Your task to perform on an android device: Add dell xps to the cart on walmart.com, then select checkout. Image 0: 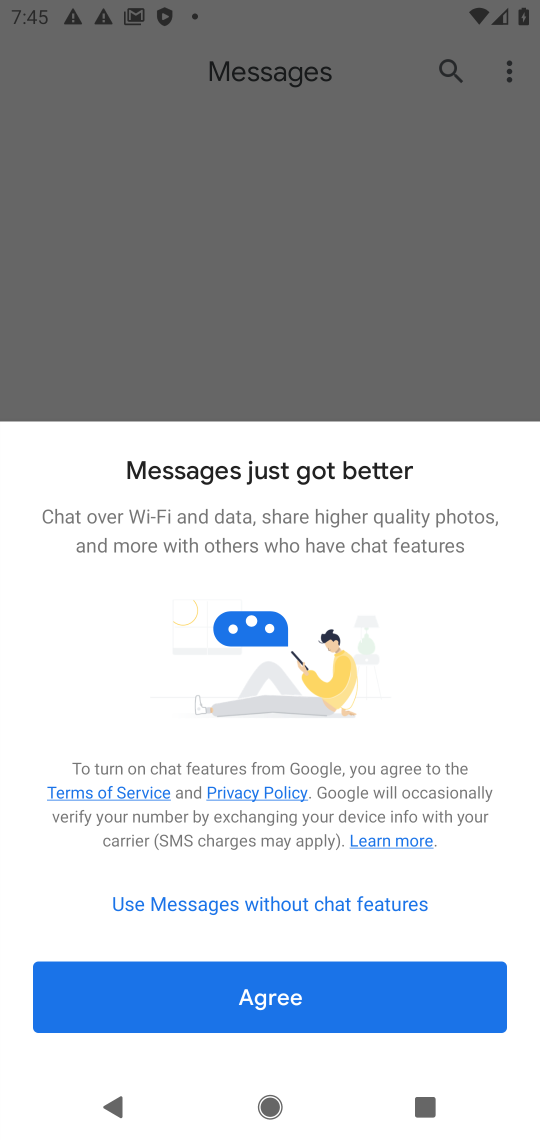
Step 0: press home button
Your task to perform on an android device: Add dell xps to the cart on walmart.com, then select checkout. Image 1: 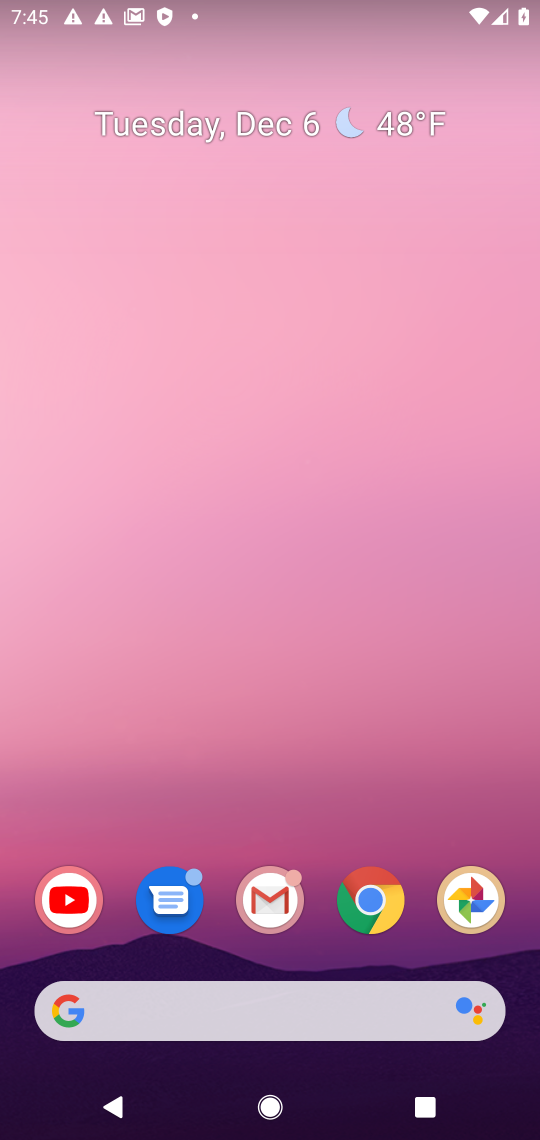
Step 1: drag from (282, 1035) to (316, 360)
Your task to perform on an android device: Add dell xps to the cart on walmart.com, then select checkout. Image 2: 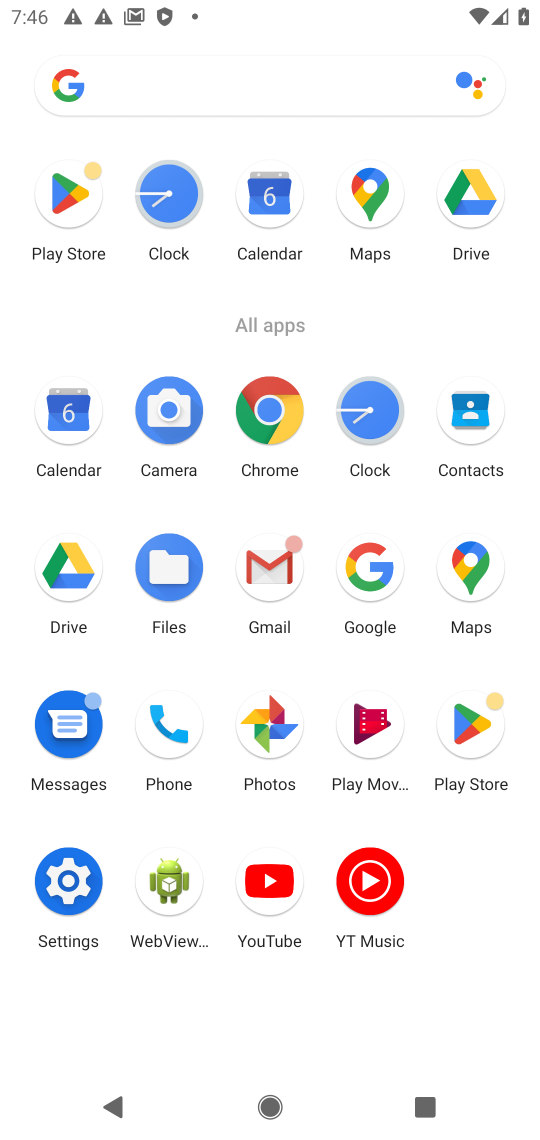
Step 2: click (363, 579)
Your task to perform on an android device: Add dell xps to the cart on walmart.com, then select checkout. Image 3: 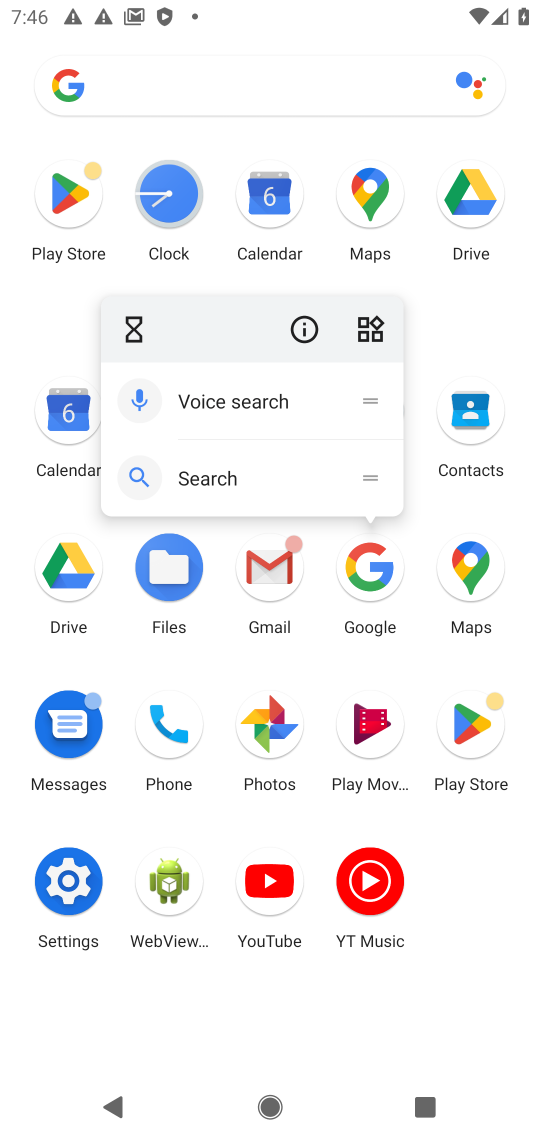
Step 3: click (366, 566)
Your task to perform on an android device: Add dell xps to the cart on walmart.com, then select checkout. Image 4: 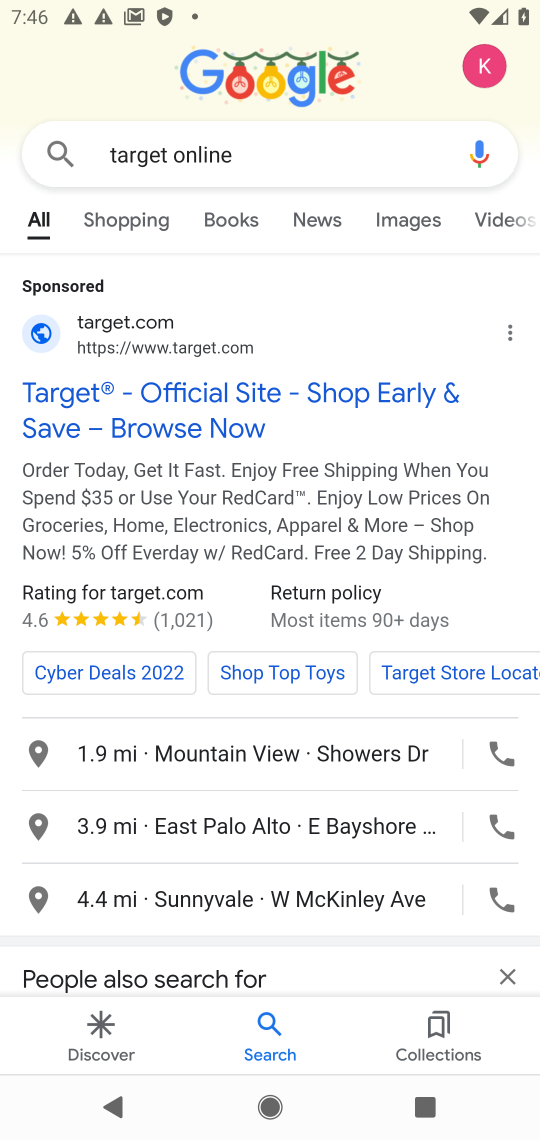
Step 4: click (257, 159)
Your task to perform on an android device: Add dell xps to the cart on walmart.com, then select checkout. Image 5: 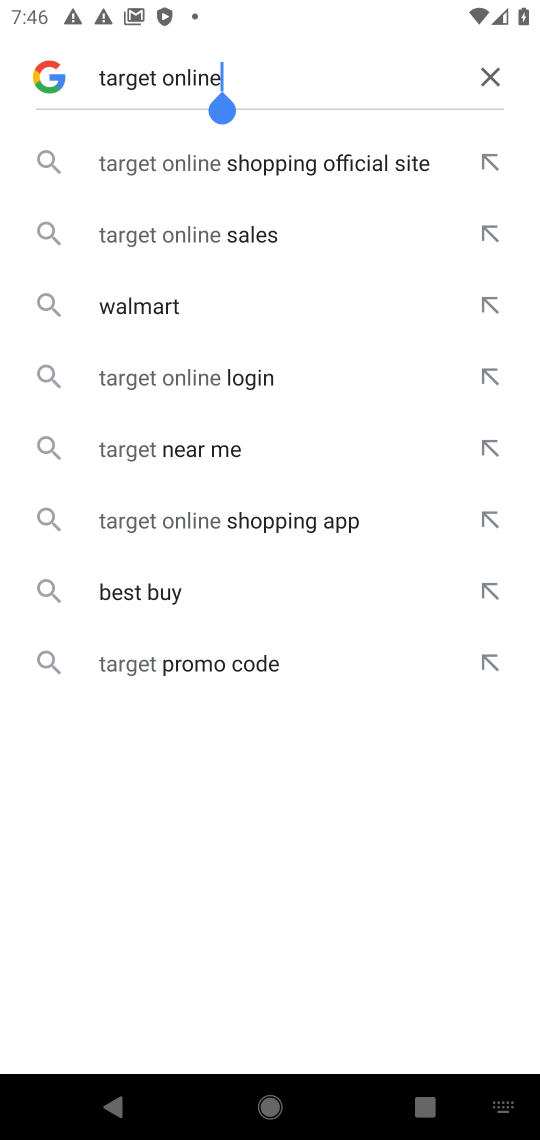
Step 5: click (484, 83)
Your task to perform on an android device: Add dell xps to the cart on walmart.com, then select checkout. Image 6: 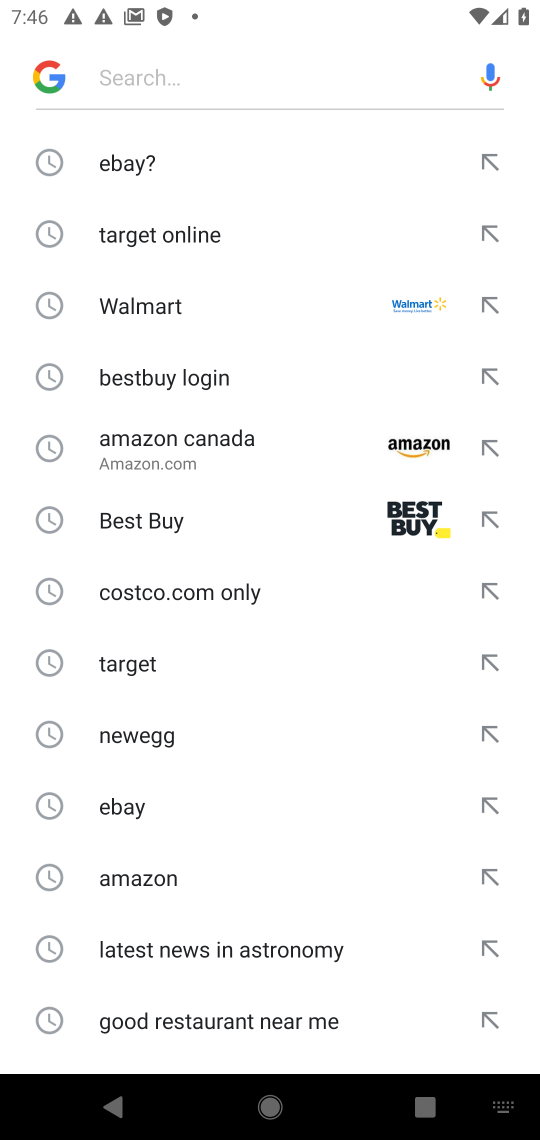
Step 6: click (430, 302)
Your task to perform on an android device: Add dell xps to the cart on walmart.com, then select checkout. Image 7: 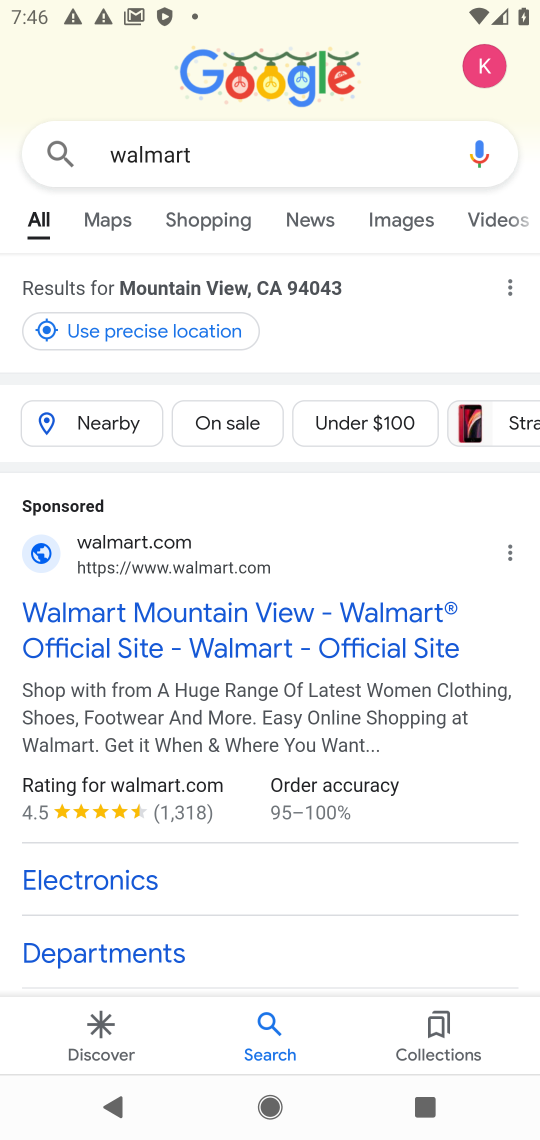
Step 7: click (196, 617)
Your task to perform on an android device: Add dell xps to the cart on walmart.com, then select checkout. Image 8: 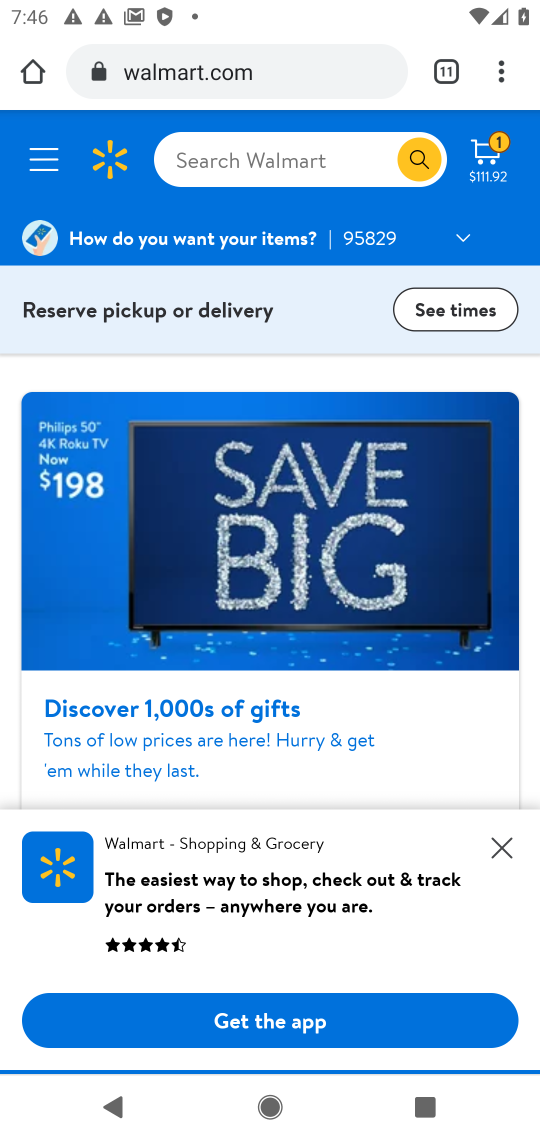
Step 8: click (250, 157)
Your task to perform on an android device: Add dell xps to the cart on walmart.com, then select checkout. Image 9: 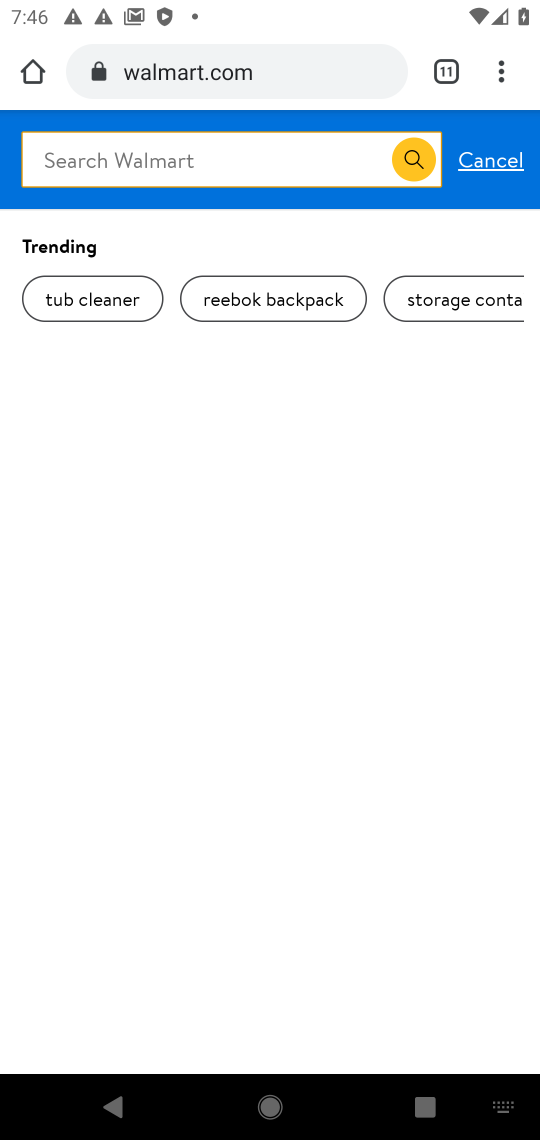
Step 9: type "xps"
Your task to perform on an android device: Add dell xps to the cart on walmart.com, then select checkout. Image 10: 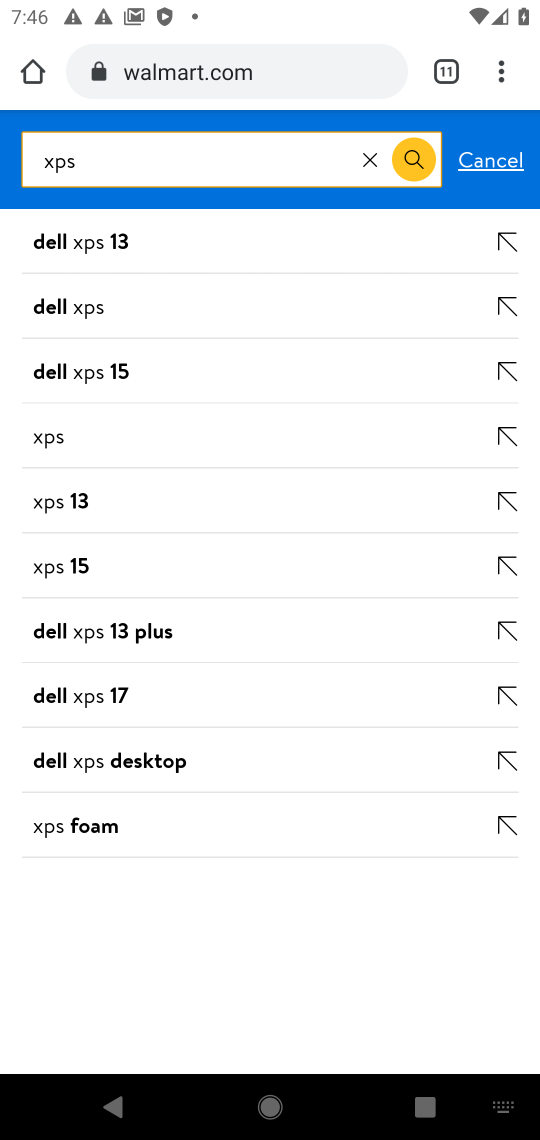
Step 10: click (79, 429)
Your task to perform on an android device: Add dell xps to the cart on walmart.com, then select checkout. Image 11: 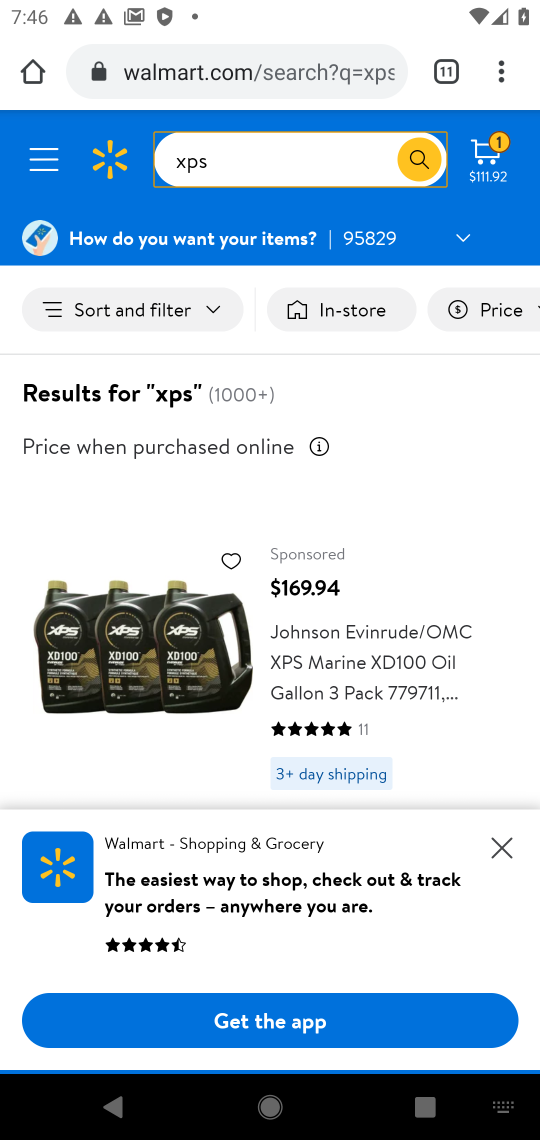
Step 11: drag from (397, 794) to (462, 316)
Your task to perform on an android device: Add dell xps to the cart on walmart.com, then select checkout. Image 12: 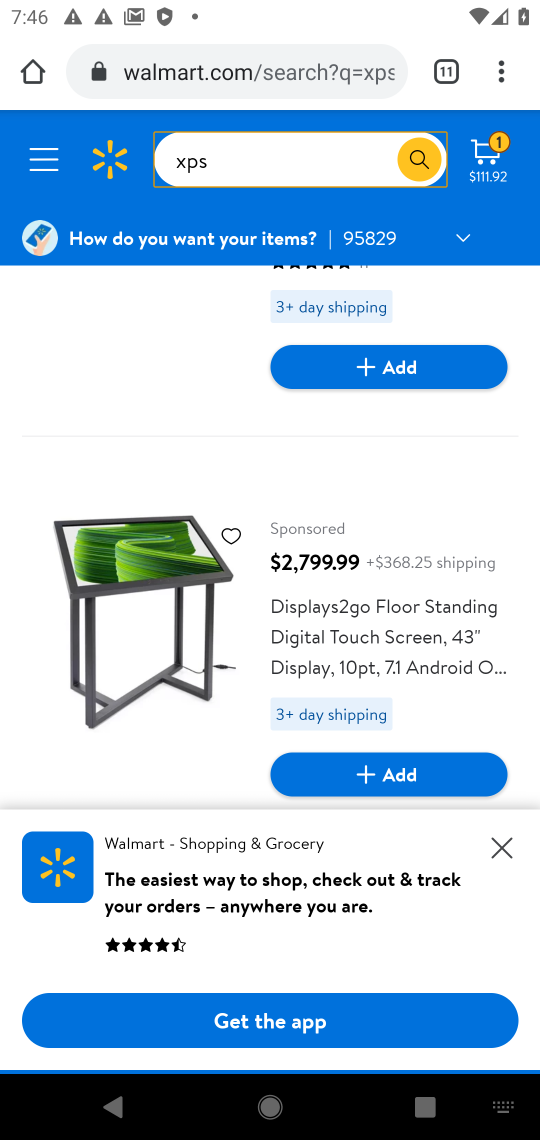
Step 12: click (394, 368)
Your task to perform on an android device: Add dell xps to the cart on walmart.com, then select checkout. Image 13: 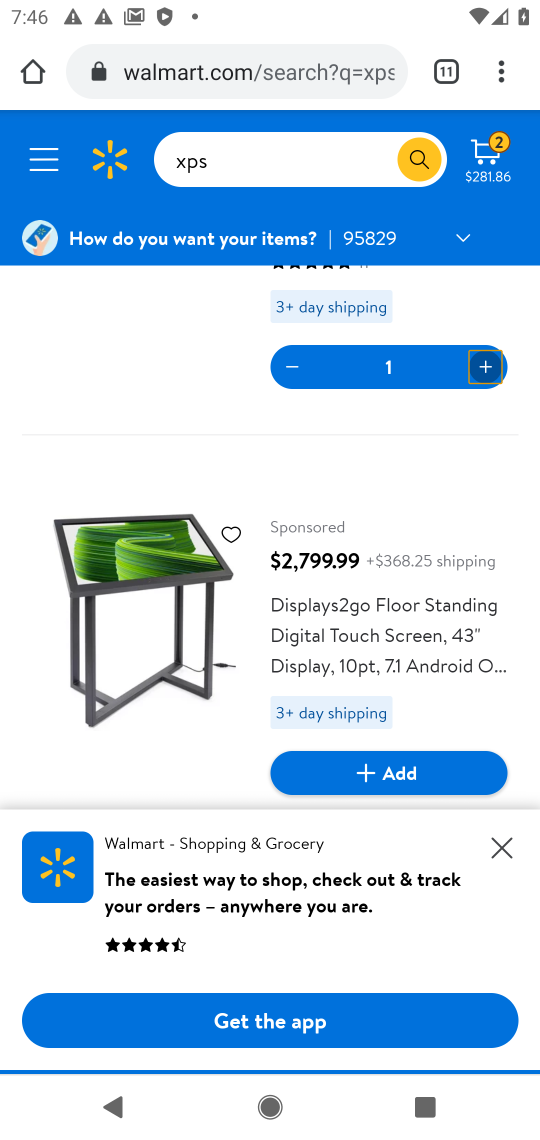
Step 13: click (504, 161)
Your task to perform on an android device: Add dell xps to the cart on walmart.com, then select checkout. Image 14: 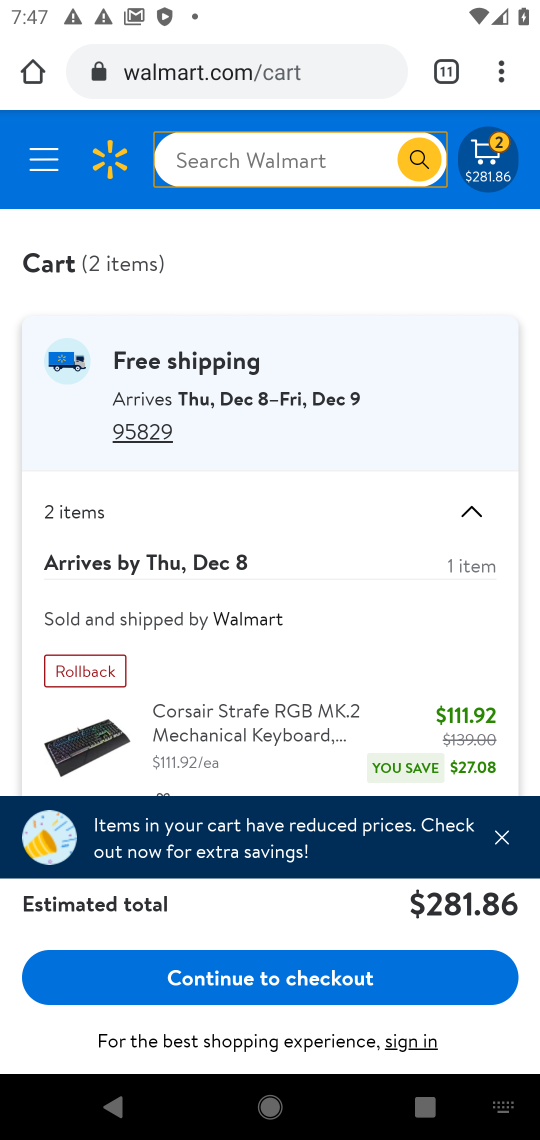
Step 14: click (294, 978)
Your task to perform on an android device: Add dell xps to the cart on walmart.com, then select checkout. Image 15: 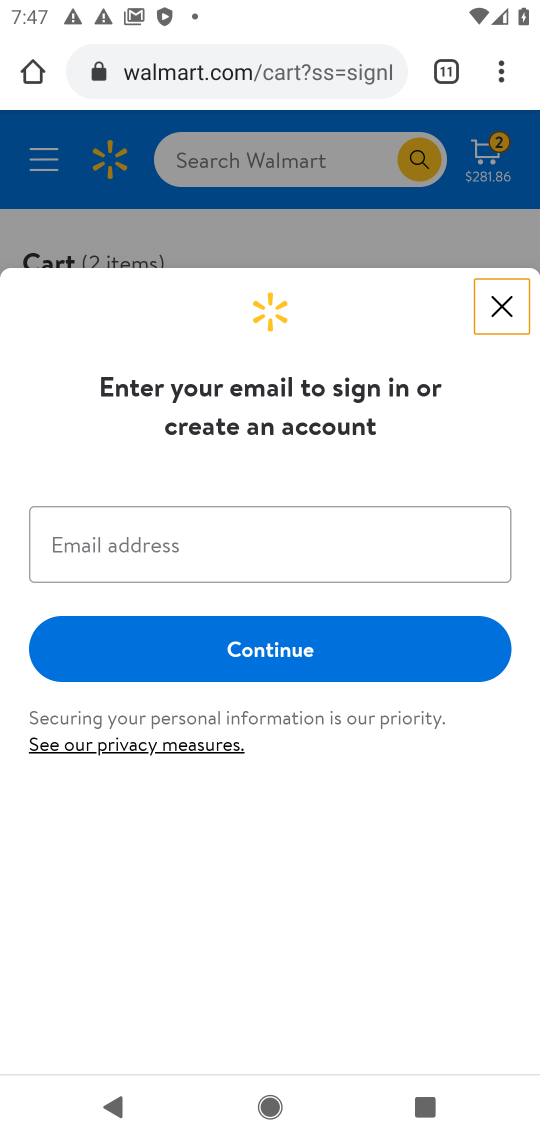
Step 15: task complete